Your task to perform on an android device: turn on airplane mode Image 0: 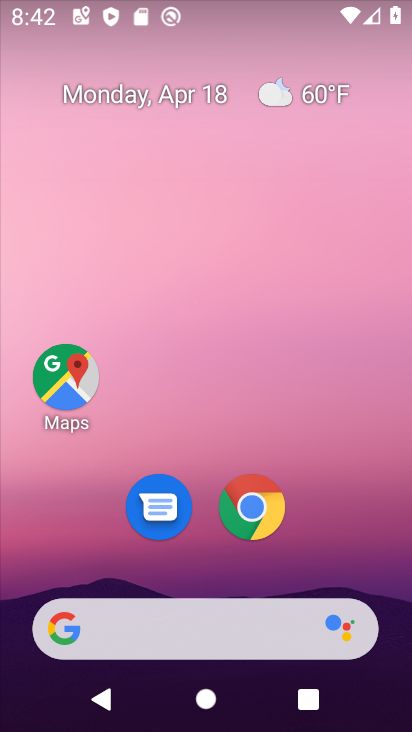
Step 0: drag from (348, 485) to (345, 129)
Your task to perform on an android device: turn on airplane mode Image 1: 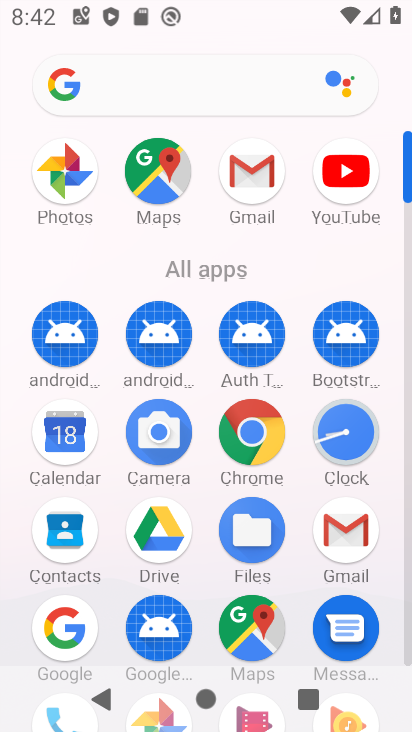
Step 1: drag from (294, 607) to (284, 348)
Your task to perform on an android device: turn on airplane mode Image 2: 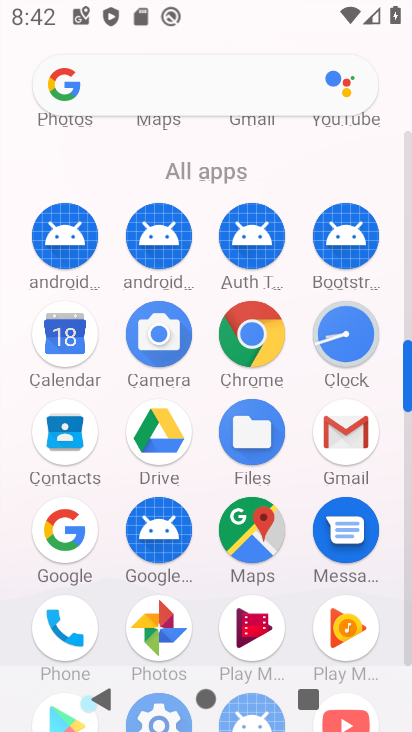
Step 2: drag from (277, 632) to (276, 380)
Your task to perform on an android device: turn on airplane mode Image 3: 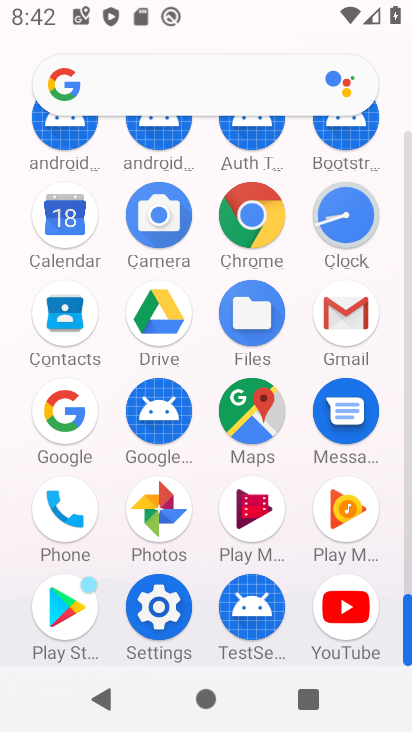
Step 3: click (163, 622)
Your task to perform on an android device: turn on airplane mode Image 4: 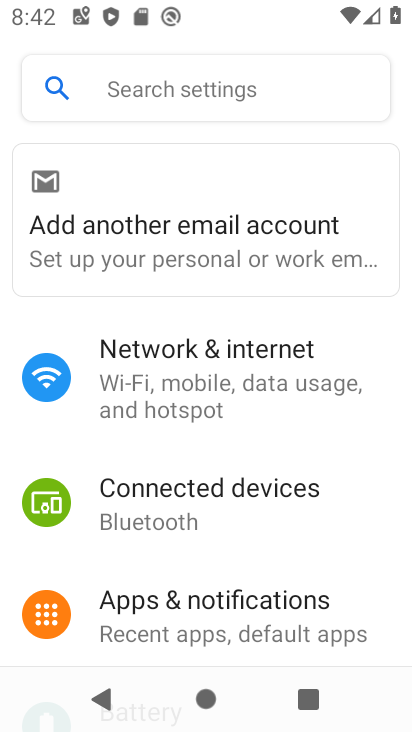
Step 4: click (262, 392)
Your task to perform on an android device: turn on airplane mode Image 5: 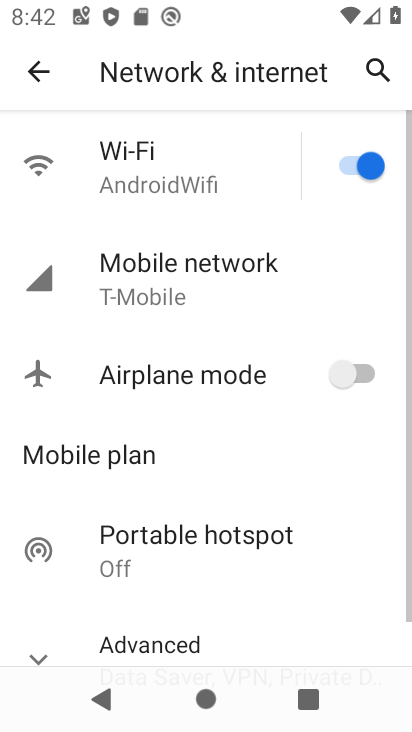
Step 5: click (364, 370)
Your task to perform on an android device: turn on airplane mode Image 6: 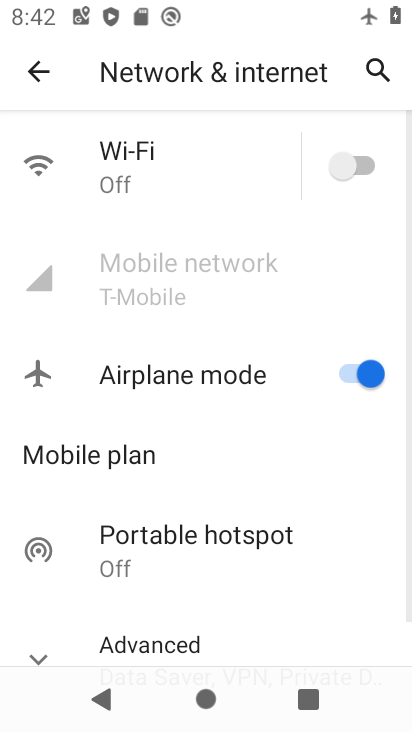
Step 6: task complete